Your task to perform on an android device: Show me popular videos on Youtube Image 0: 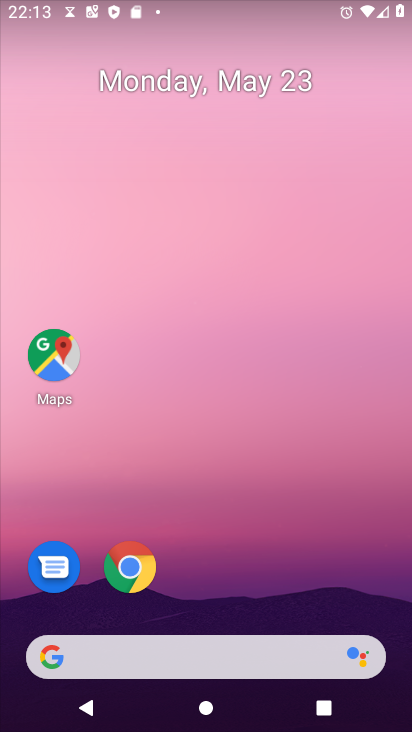
Step 0: drag from (238, 606) to (332, 270)
Your task to perform on an android device: Show me popular videos on Youtube Image 1: 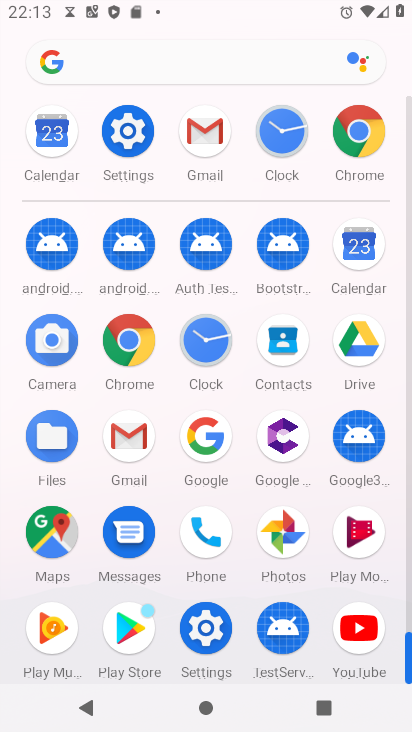
Step 1: click (353, 630)
Your task to perform on an android device: Show me popular videos on Youtube Image 2: 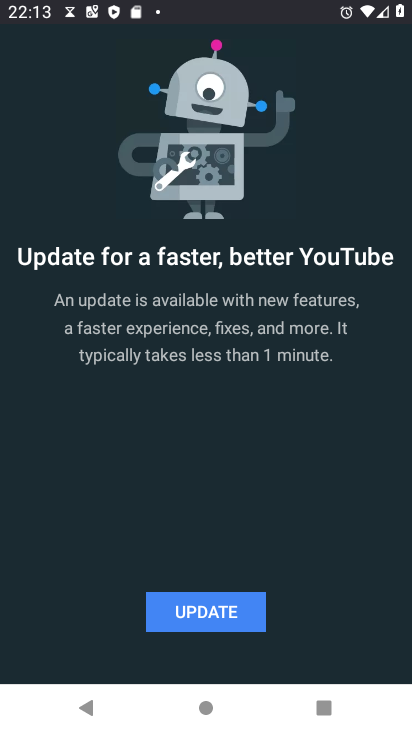
Step 2: task complete